Your task to perform on an android device: toggle wifi Image 0: 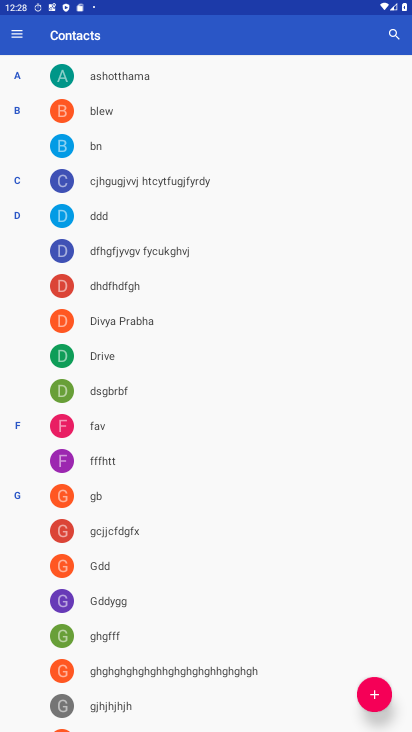
Step 0: press home button
Your task to perform on an android device: toggle wifi Image 1: 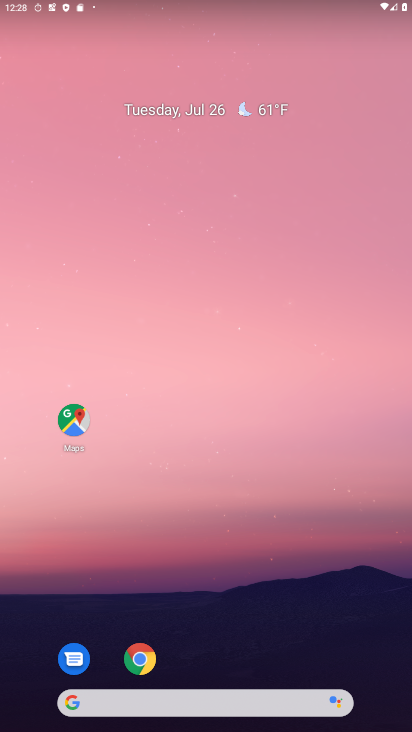
Step 1: drag from (16, 693) to (146, 70)
Your task to perform on an android device: toggle wifi Image 2: 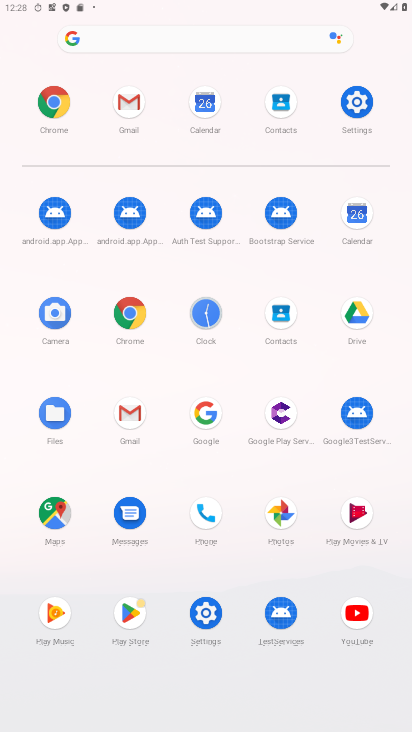
Step 2: click (203, 603)
Your task to perform on an android device: toggle wifi Image 3: 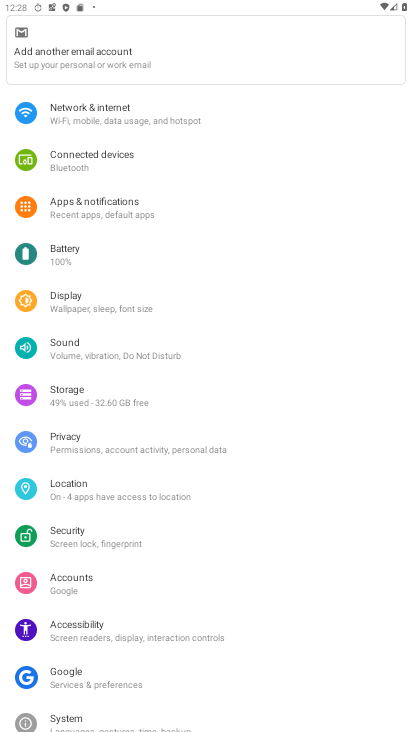
Step 3: click (76, 110)
Your task to perform on an android device: toggle wifi Image 4: 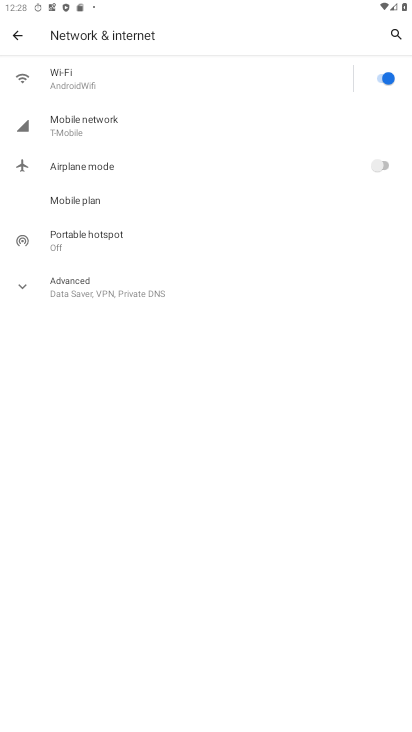
Step 4: task complete